Your task to perform on an android device: see sites visited before in the chrome app Image 0: 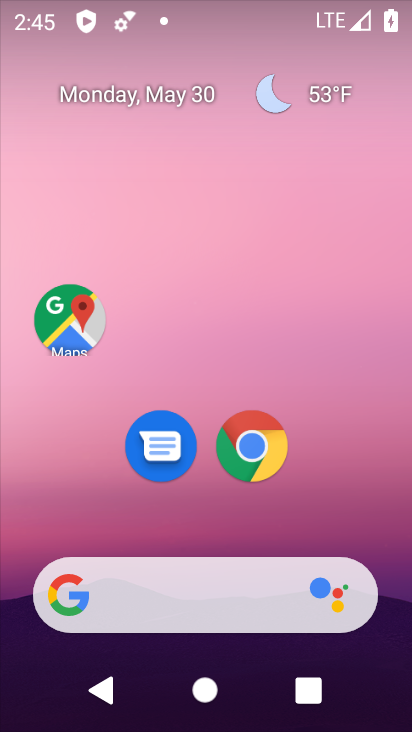
Step 0: click (254, 447)
Your task to perform on an android device: see sites visited before in the chrome app Image 1: 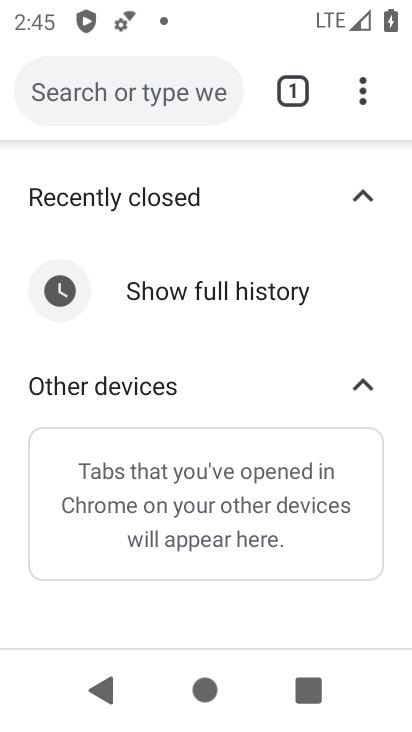
Step 1: click (364, 98)
Your task to perform on an android device: see sites visited before in the chrome app Image 2: 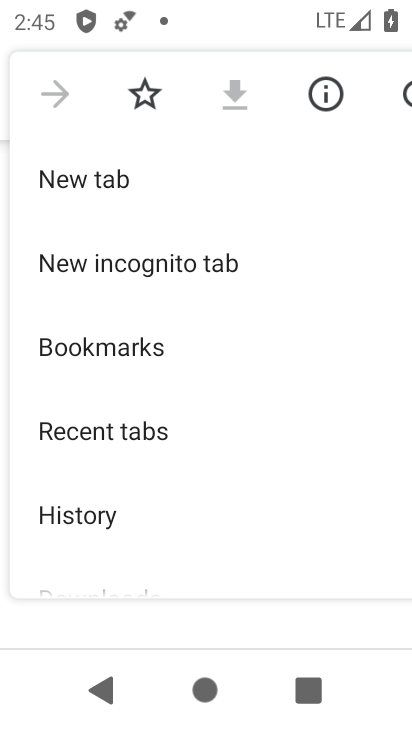
Step 2: click (92, 514)
Your task to perform on an android device: see sites visited before in the chrome app Image 3: 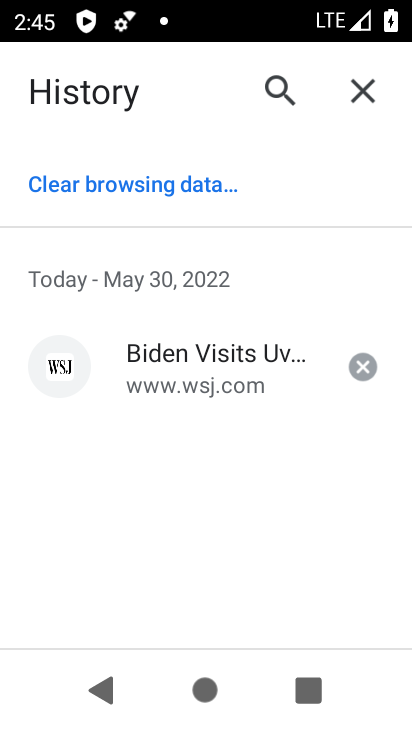
Step 3: task complete